Your task to perform on an android device: Check the news Image 0: 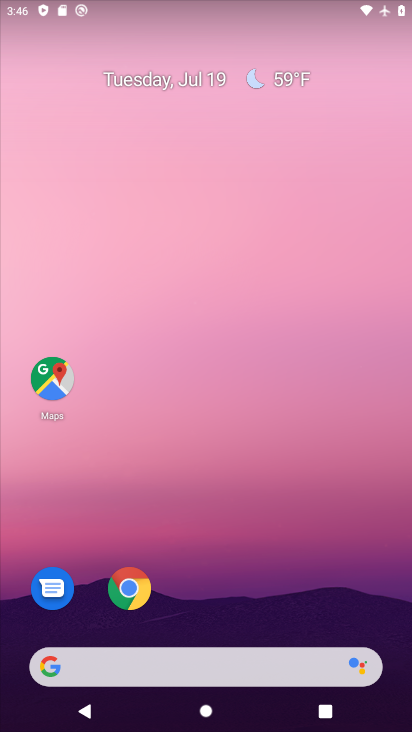
Step 0: press home button
Your task to perform on an android device: Check the news Image 1: 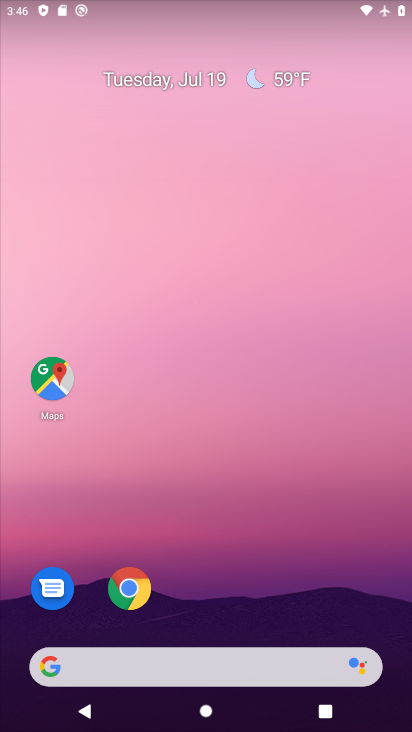
Step 1: click (43, 668)
Your task to perform on an android device: Check the news Image 2: 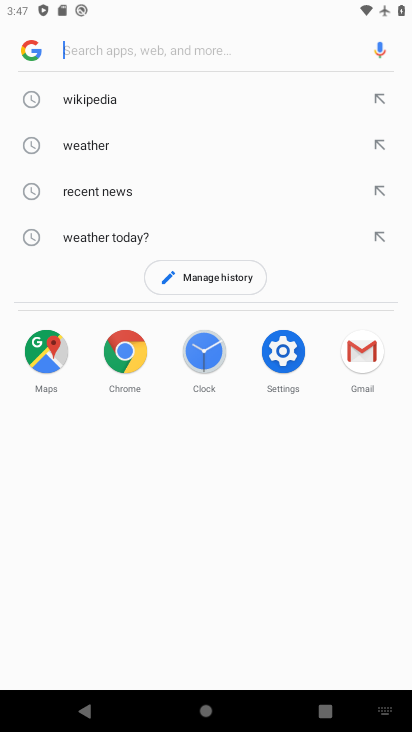
Step 2: type "news"
Your task to perform on an android device: Check the news Image 3: 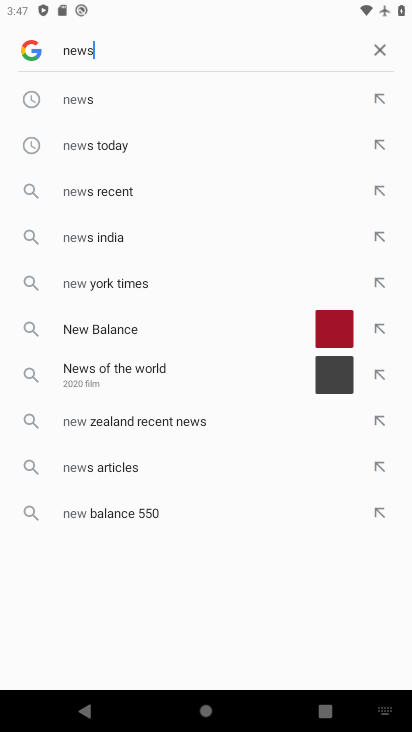
Step 3: press enter
Your task to perform on an android device: Check the news Image 4: 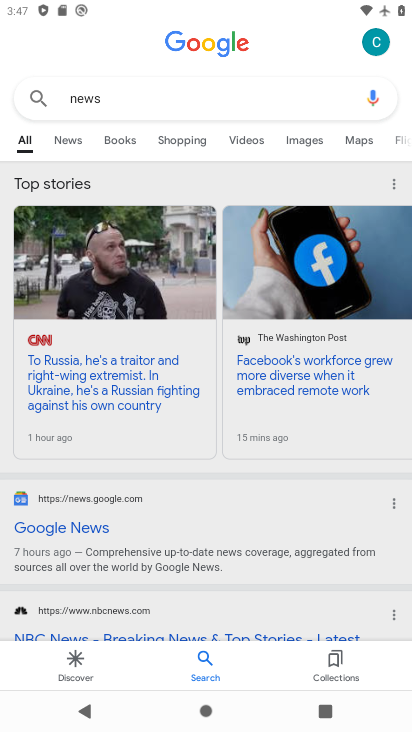
Step 4: task complete